Your task to perform on an android device: Open Google Chrome and click the shortcut for Amazon.com Image 0: 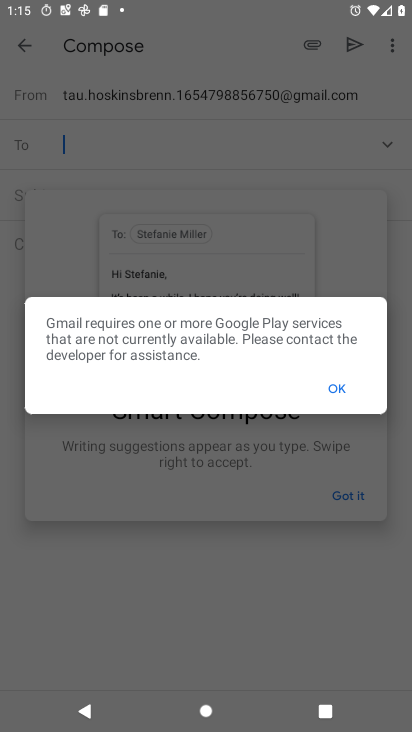
Step 0: press home button
Your task to perform on an android device: Open Google Chrome and click the shortcut for Amazon.com Image 1: 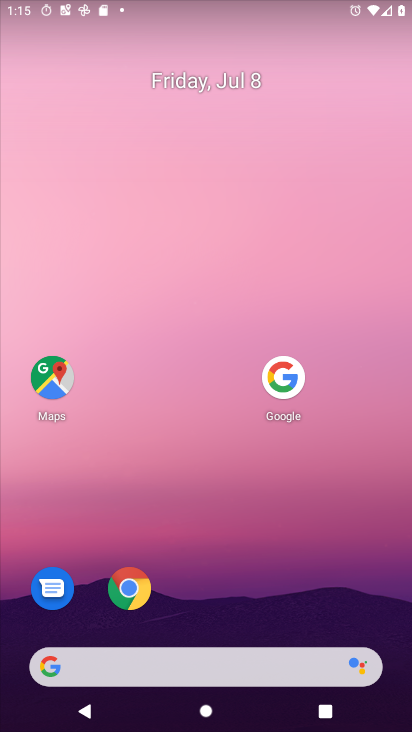
Step 1: click (131, 589)
Your task to perform on an android device: Open Google Chrome and click the shortcut for Amazon.com Image 2: 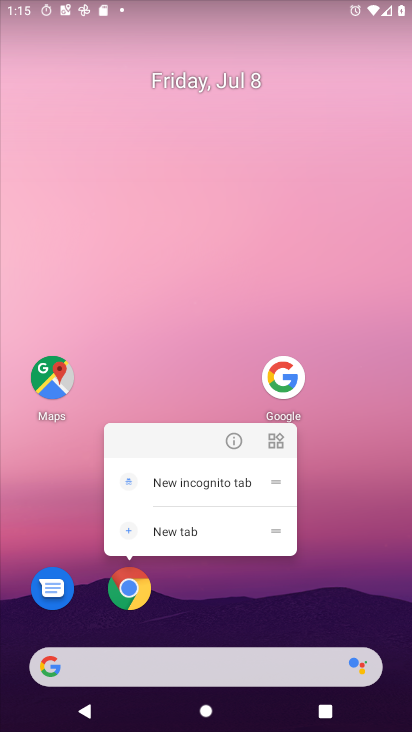
Step 2: click (134, 580)
Your task to perform on an android device: Open Google Chrome and click the shortcut for Amazon.com Image 3: 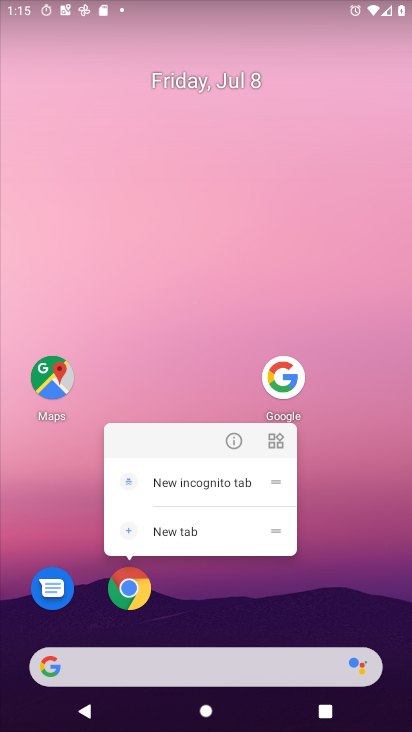
Step 3: click (126, 587)
Your task to perform on an android device: Open Google Chrome and click the shortcut for Amazon.com Image 4: 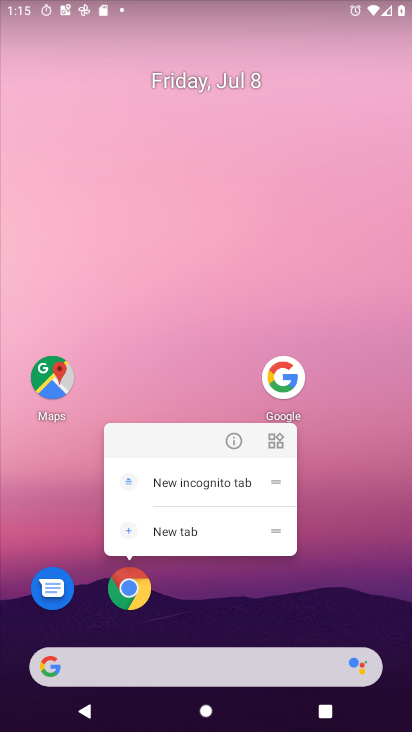
Step 4: click (126, 595)
Your task to perform on an android device: Open Google Chrome and click the shortcut for Amazon.com Image 5: 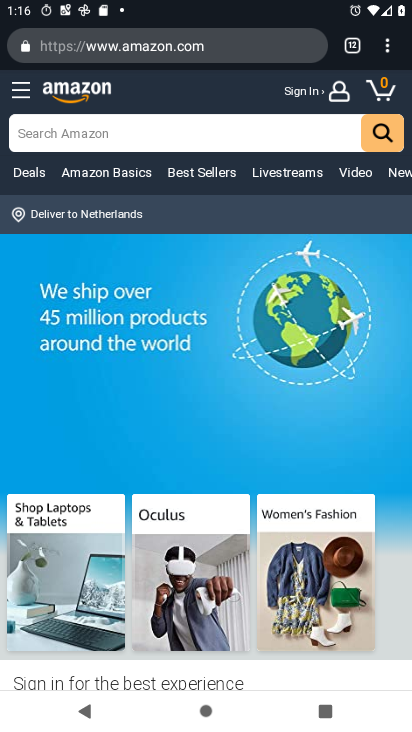
Step 5: task complete